Your task to perform on an android device: Open Google Chrome and open the bookmarks view Image 0: 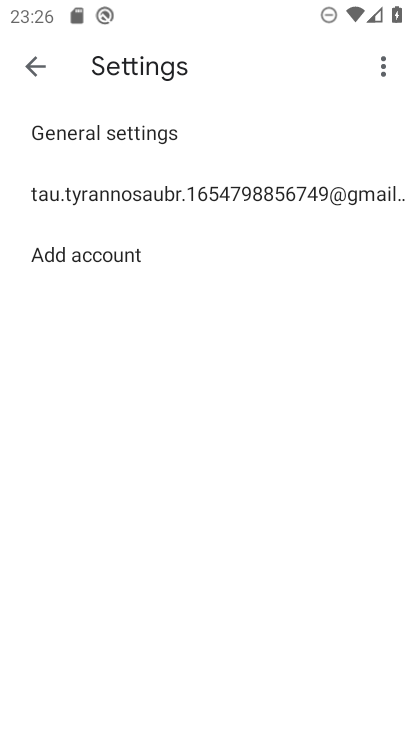
Step 0: press home button
Your task to perform on an android device: Open Google Chrome and open the bookmarks view Image 1: 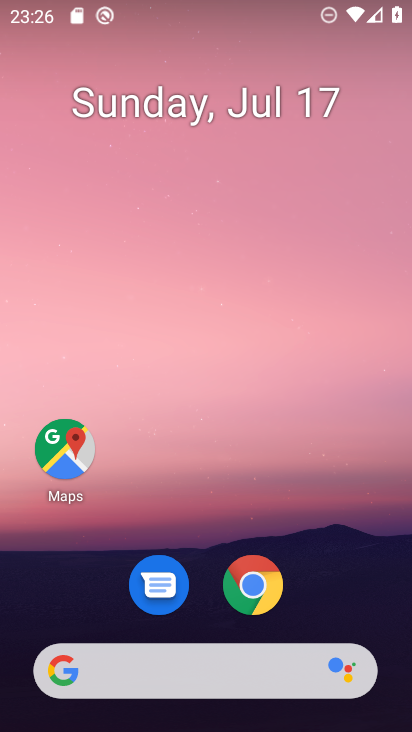
Step 1: click (248, 594)
Your task to perform on an android device: Open Google Chrome and open the bookmarks view Image 2: 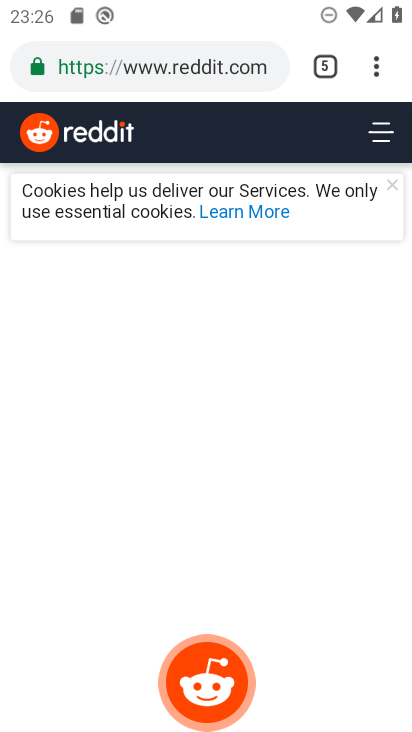
Step 2: task complete